Your task to perform on an android device: Open Google Maps and go to "Timeline" Image 0: 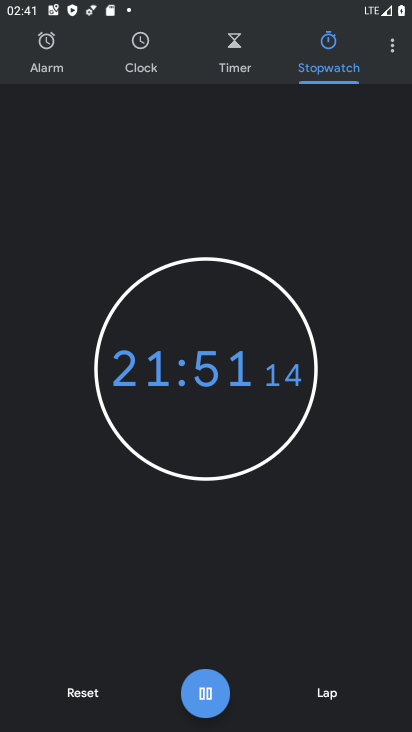
Step 0: press home button
Your task to perform on an android device: Open Google Maps and go to "Timeline" Image 1: 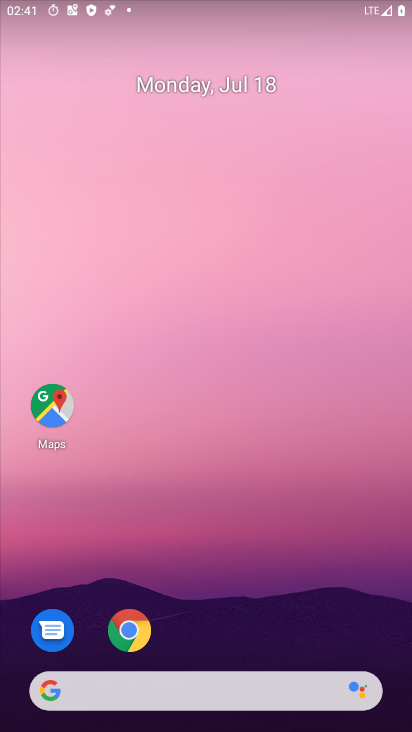
Step 1: click (52, 390)
Your task to perform on an android device: Open Google Maps and go to "Timeline" Image 2: 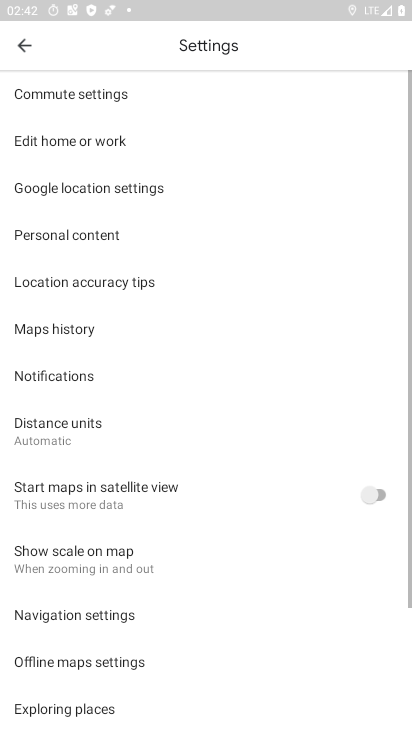
Step 2: click (28, 52)
Your task to perform on an android device: Open Google Maps and go to "Timeline" Image 3: 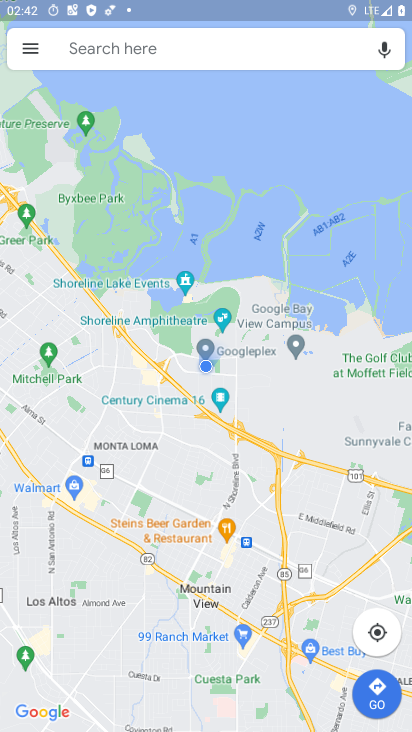
Step 3: click (28, 52)
Your task to perform on an android device: Open Google Maps and go to "Timeline" Image 4: 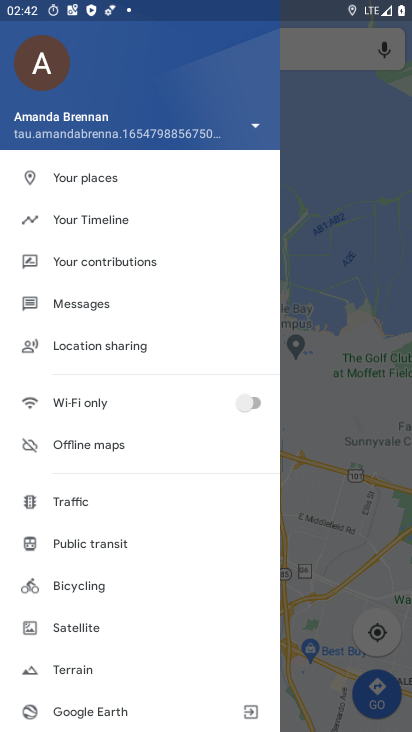
Step 4: click (149, 220)
Your task to perform on an android device: Open Google Maps and go to "Timeline" Image 5: 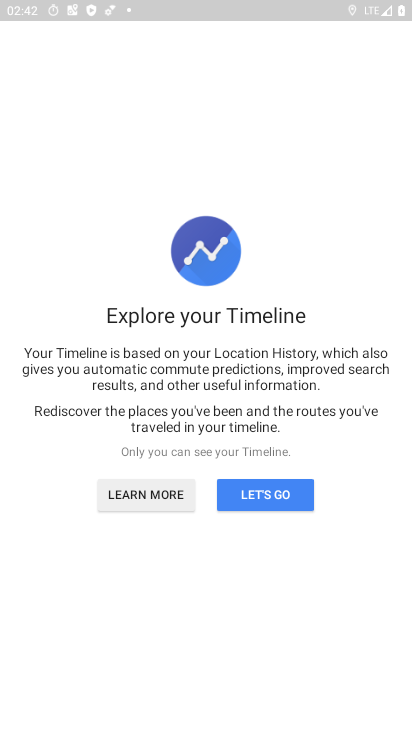
Step 5: click (288, 501)
Your task to perform on an android device: Open Google Maps and go to "Timeline" Image 6: 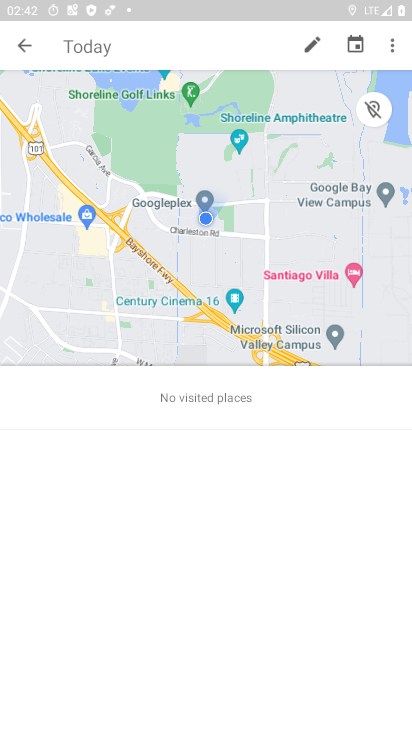
Step 6: task complete